Your task to perform on an android device: turn on priority inbox in the gmail app Image 0: 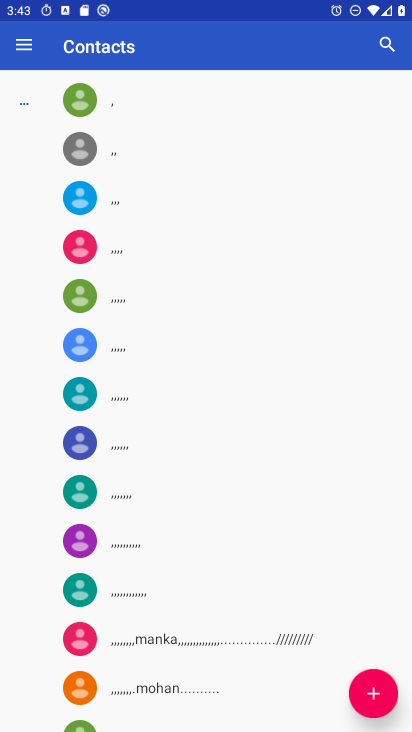
Step 0: press home button
Your task to perform on an android device: turn on priority inbox in the gmail app Image 1: 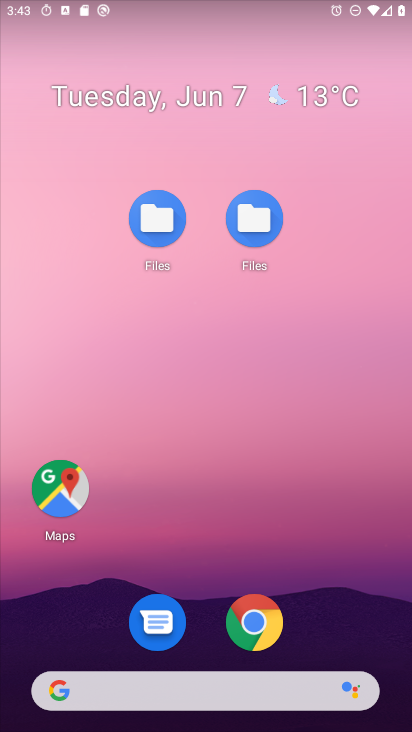
Step 1: drag from (325, 640) to (343, 222)
Your task to perform on an android device: turn on priority inbox in the gmail app Image 2: 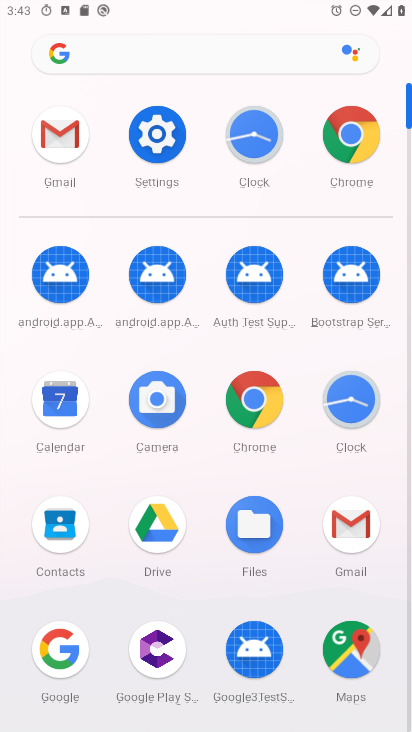
Step 2: click (46, 131)
Your task to perform on an android device: turn on priority inbox in the gmail app Image 3: 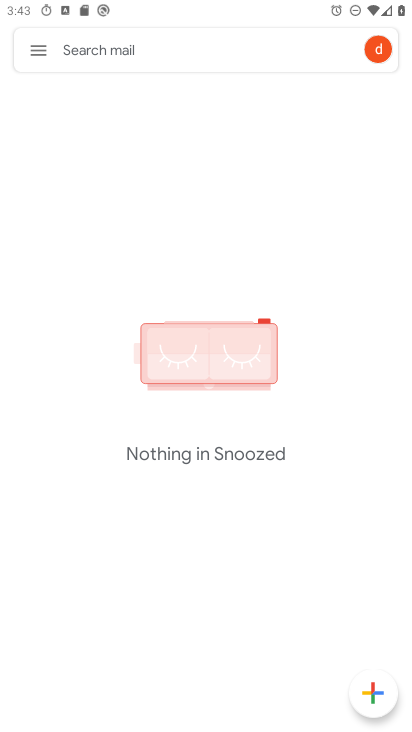
Step 3: click (32, 47)
Your task to perform on an android device: turn on priority inbox in the gmail app Image 4: 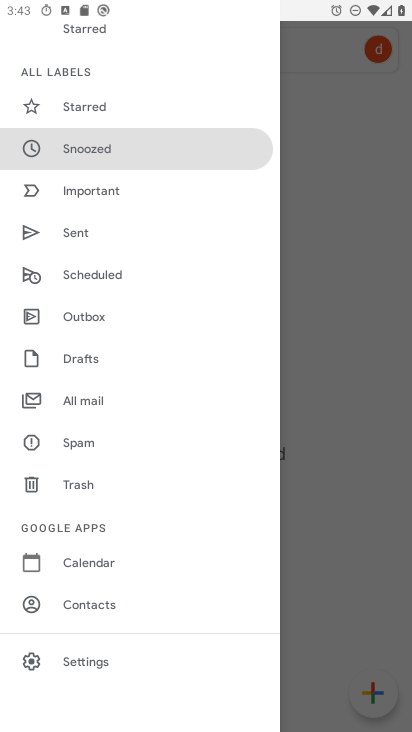
Step 4: drag from (140, 88) to (99, 451)
Your task to perform on an android device: turn on priority inbox in the gmail app Image 5: 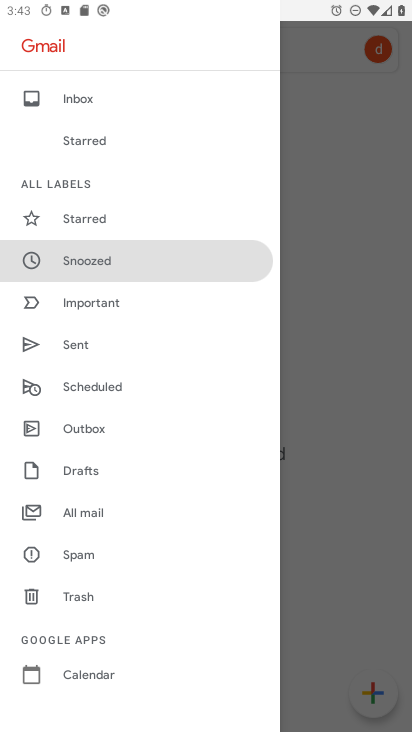
Step 5: drag from (140, 629) to (266, 219)
Your task to perform on an android device: turn on priority inbox in the gmail app Image 6: 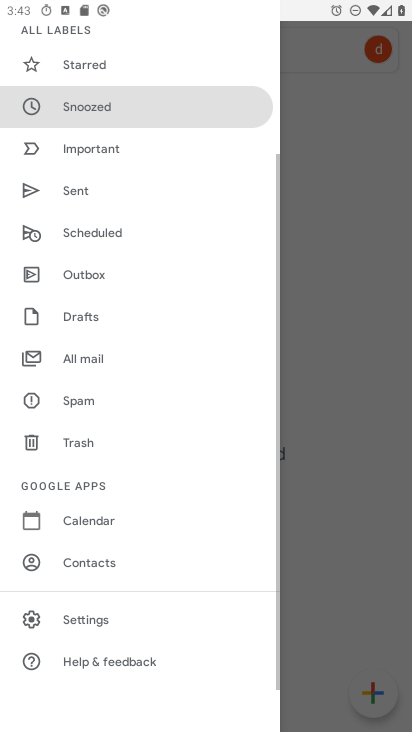
Step 6: click (40, 617)
Your task to perform on an android device: turn on priority inbox in the gmail app Image 7: 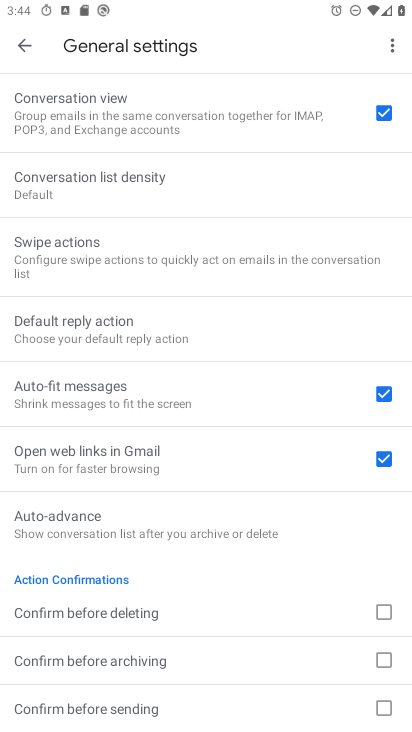
Step 7: drag from (219, 683) to (269, 400)
Your task to perform on an android device: turn on priority inbox in the gmail app Image 8: 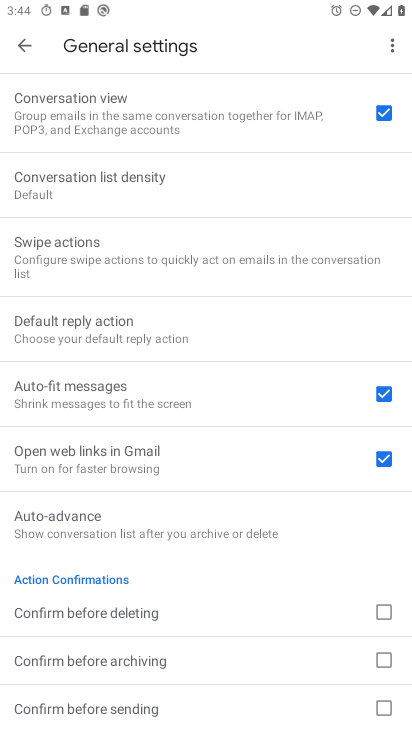
Step 8: drag from (280, 90) to (266, 414)
Your task to perform on an android device: turn on priority inbox in the gmail app Image 9: 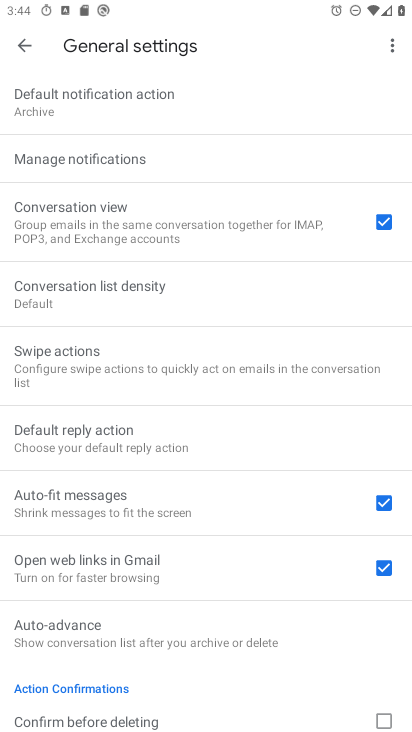
Step 9: click (391, 40)
Your task to perform on an android device: turn on priority inbox in the gmail app Image 10: 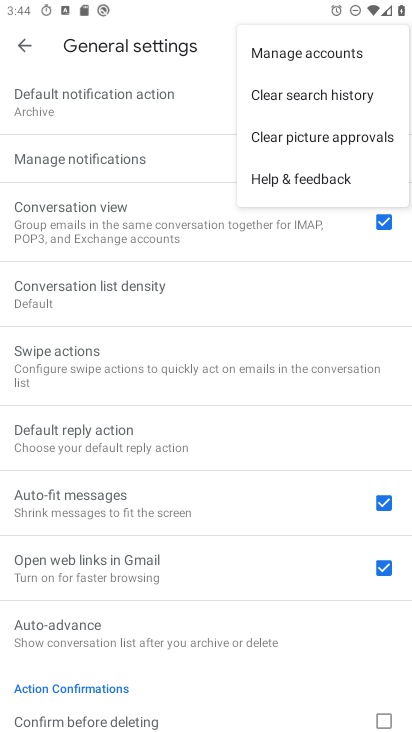
Step 10: drag from (119, 102) to (112, 416)
Your task to perform on an android device: turn on priority inbox in the gmail app Image 11: 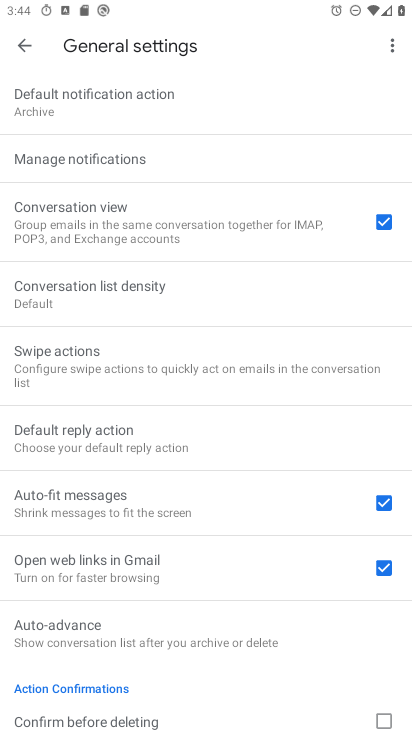
Step 11: click (115, 352)
Your task to perform on an android device: turn on priority inbox in the gmail app Image 12: 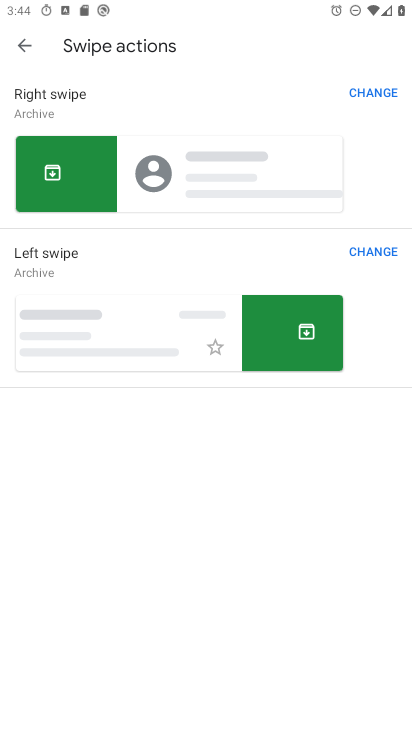
Step 12: task complete